Your task to perform on an android device: toggle javascript in the chrome app Image 0: 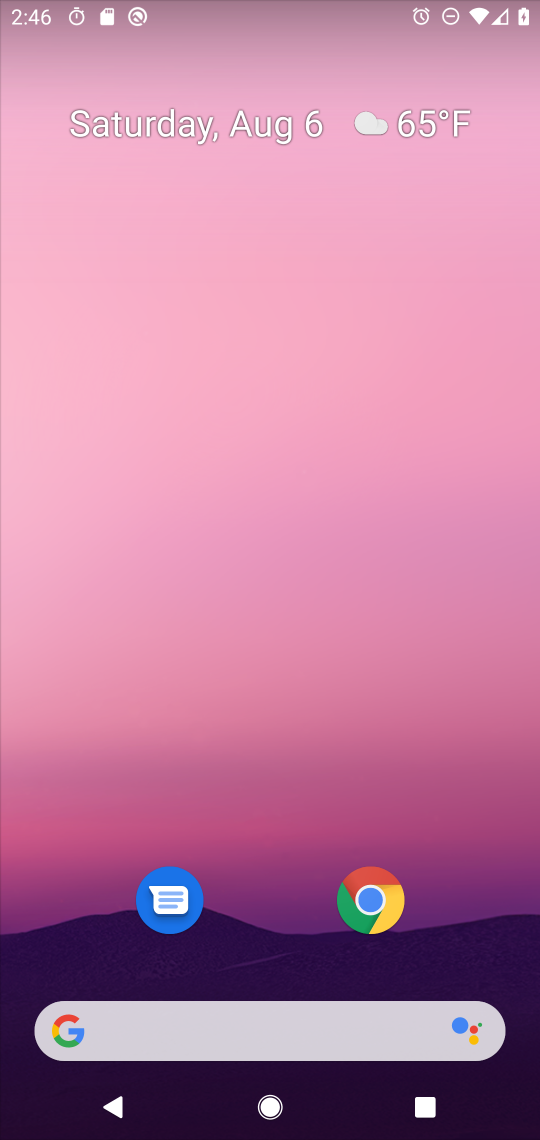
Step 0: click (272, 213)
Your task to perform on an android device: toggle javascript in the chrome app Image 1: 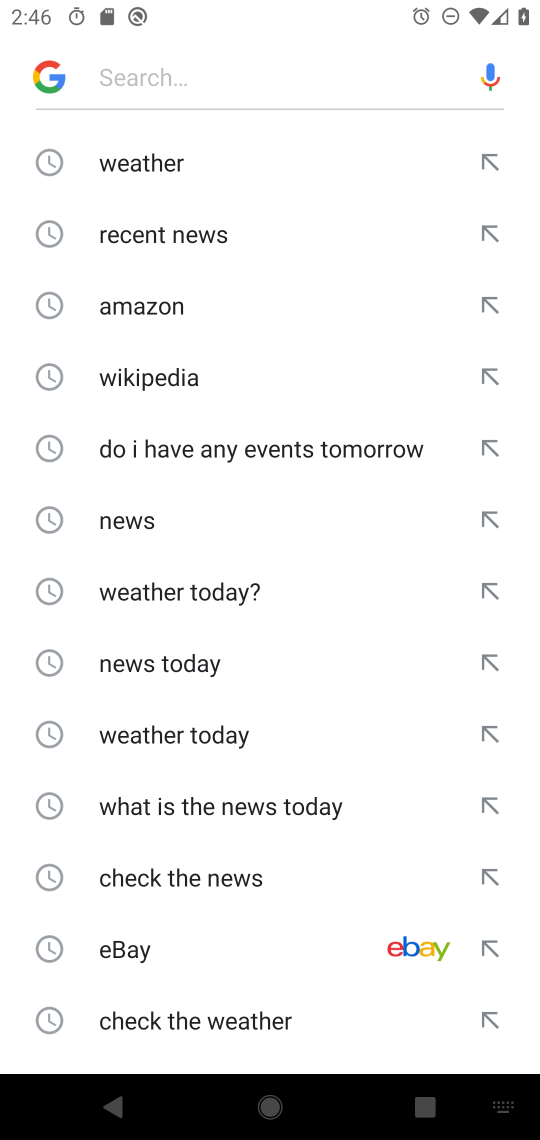
Step 1: press home button
Your task to perform on an android device: toggle javascript in the chrome app Image 2: 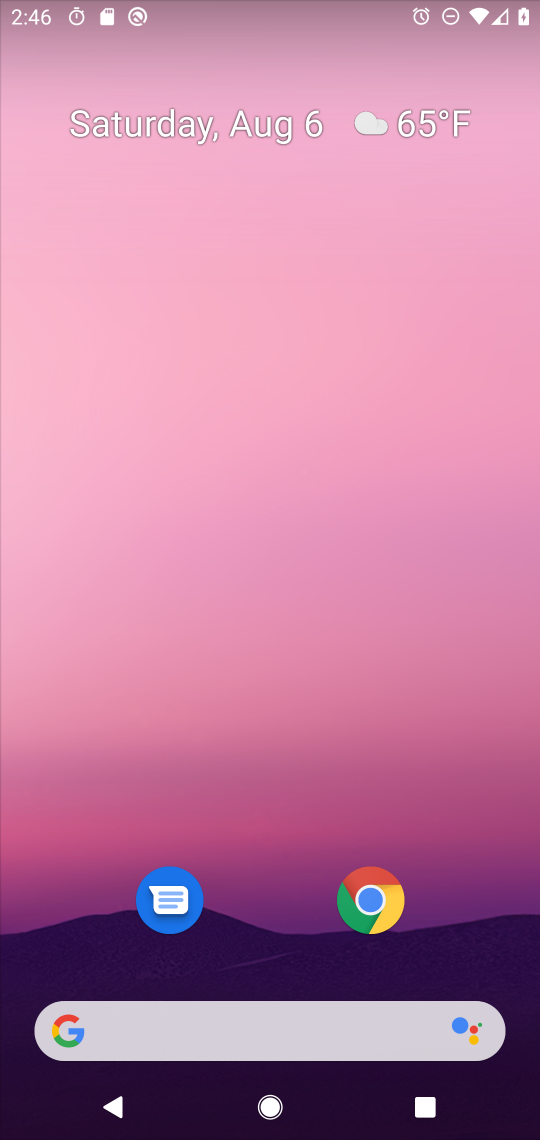
Step 2: click (373, 908)
Your task to perform on an android device: toggle javascript in the chrome app Image 3: 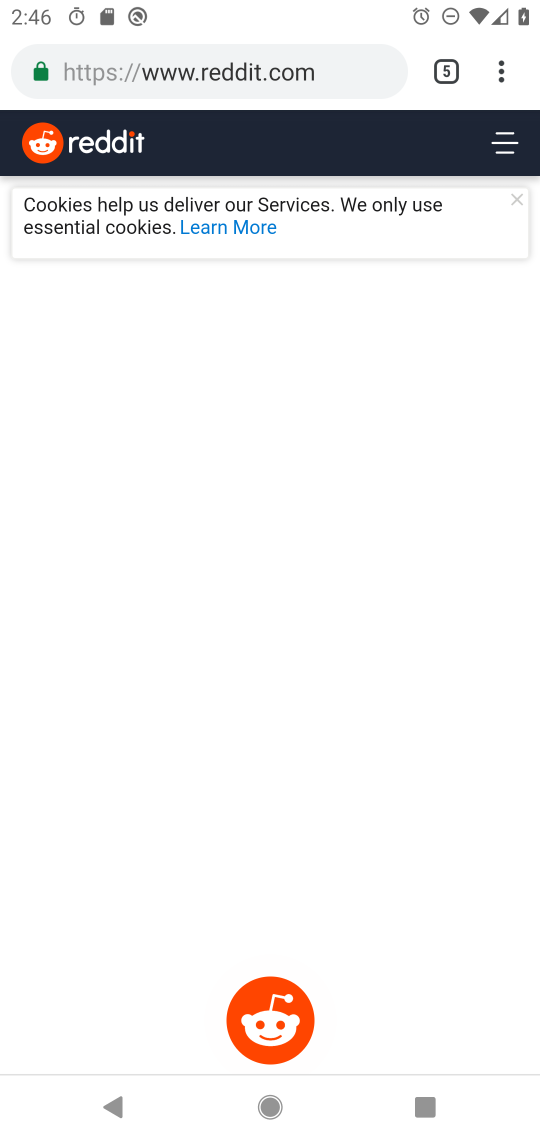
Step 3: click (501, 77)
Your task to perform on an android device: toggle javascript in the chrome app Image 4: 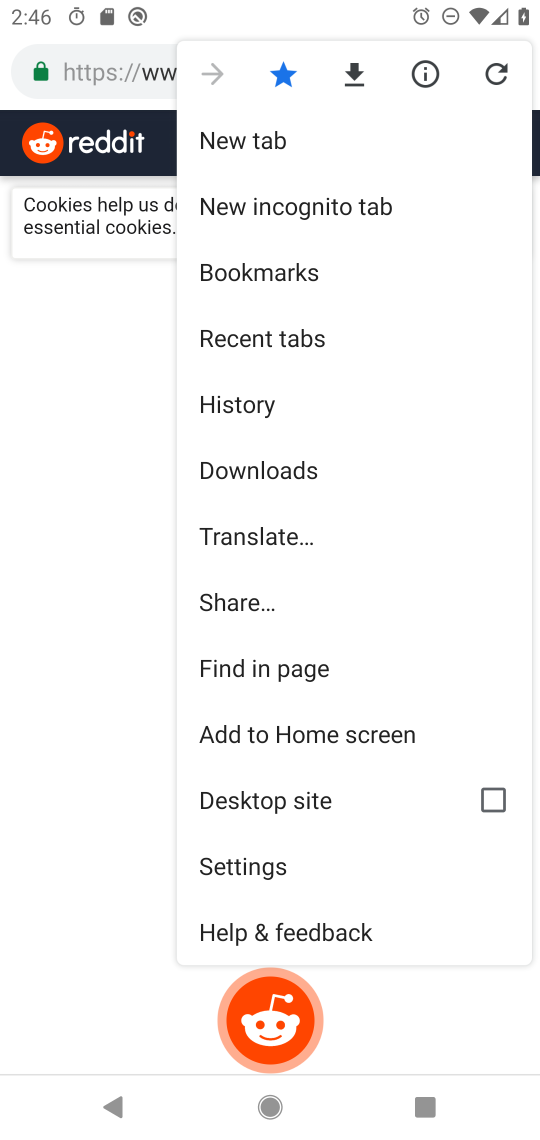
Step 4: click (249, 870)
Your task to perform on an android device: toggle javascript in the chrome app Image 5: 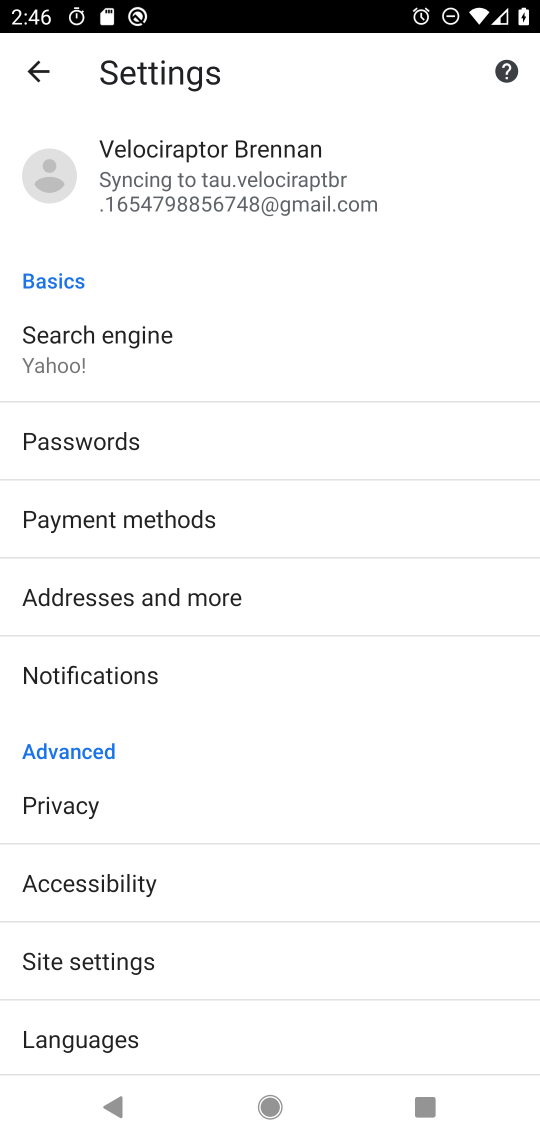
Step 5: click (95, 966)
Your task to perform on an android device: toggle javascript in the chrome app Image 6: 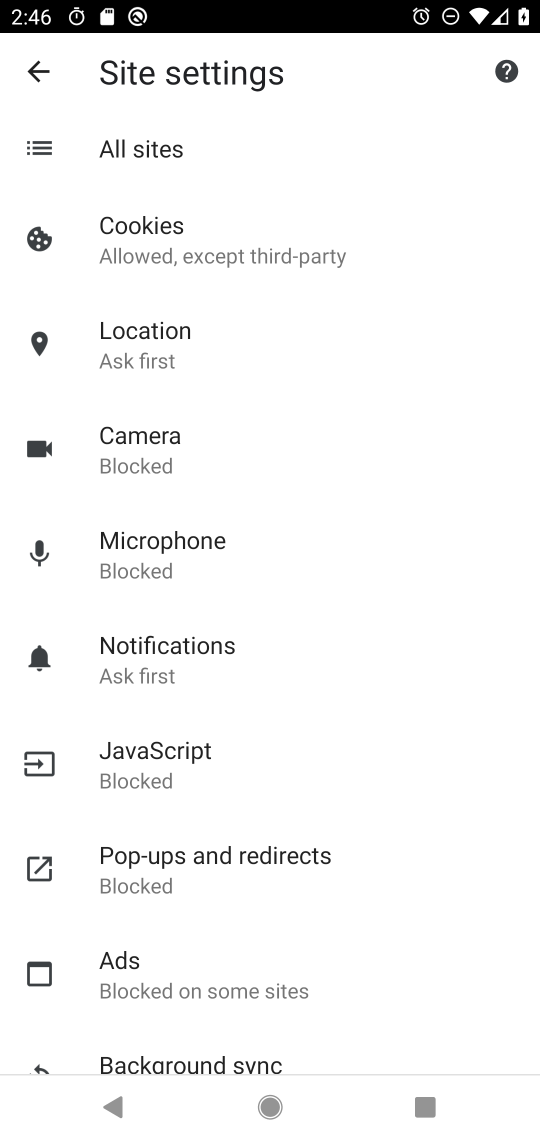
Step 6: click (144, 765)
Your task to perform on an android device: toggle javascript in the chrome app Image 7: 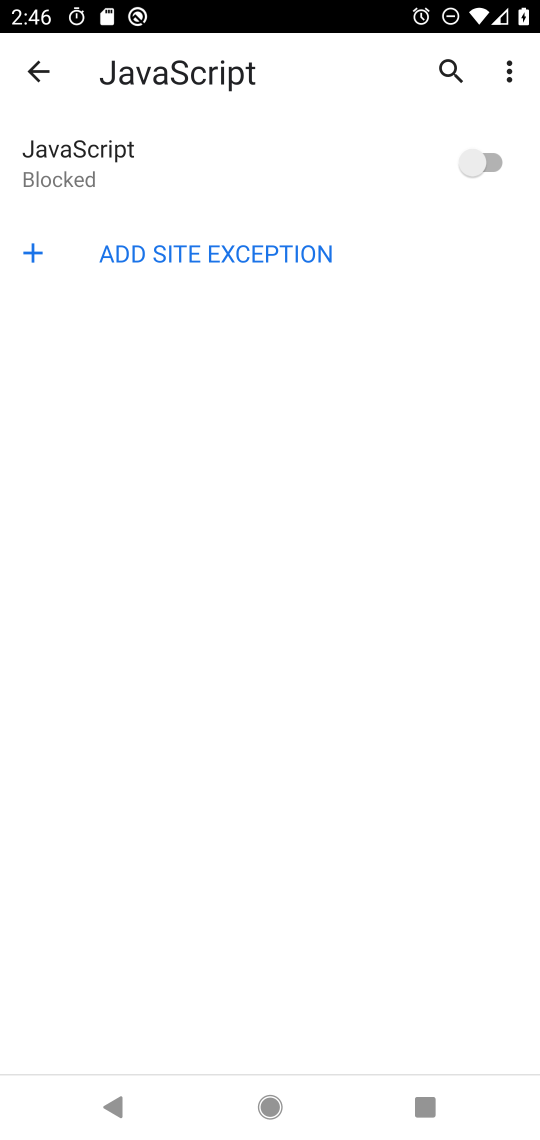
Step 7: click (487, 151)
Your task to perform on an android device: toggle javascript in the chrome app Image 8: 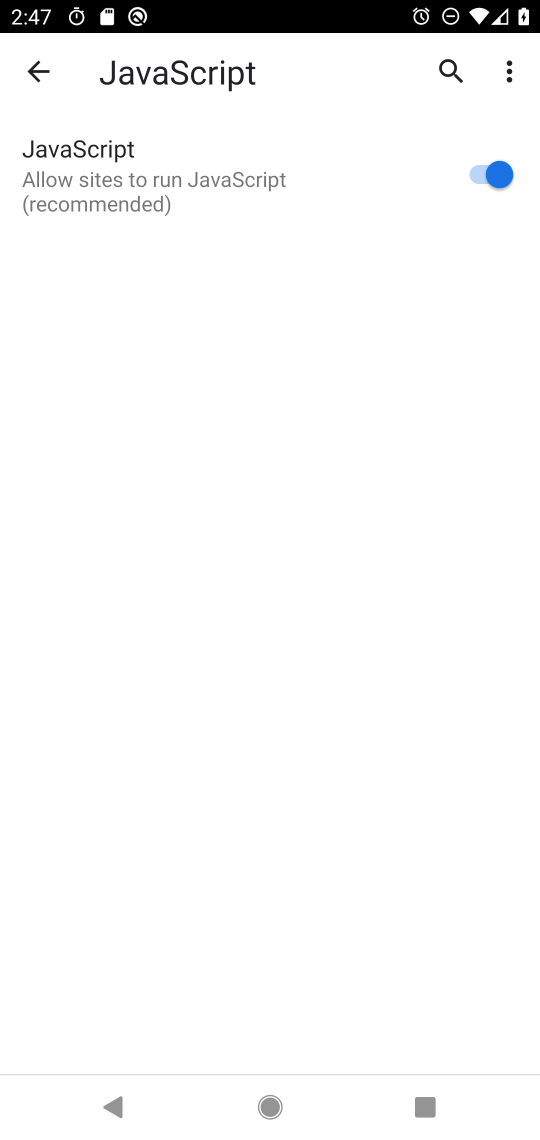
Step 8: task complete